Your task to perform on an android device: install app "Expedia: Hotels, Flights & Car" Image 0: 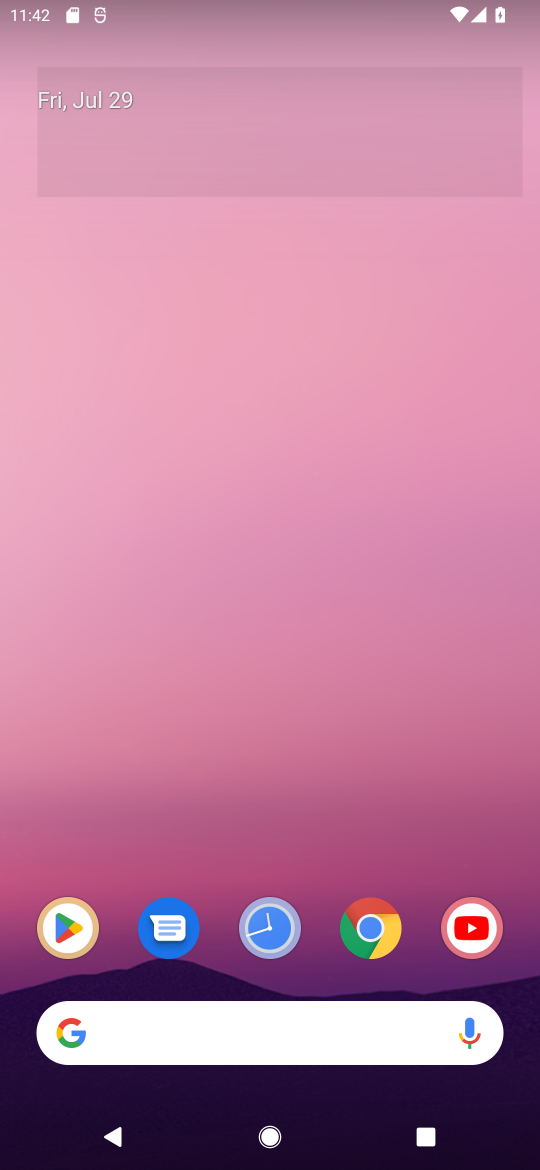
Step 0: drag from (411, 634) to (290, 14)
Your task to perform on an android device: install app "Expedia: Hotels, Flights & Car" Image 1: 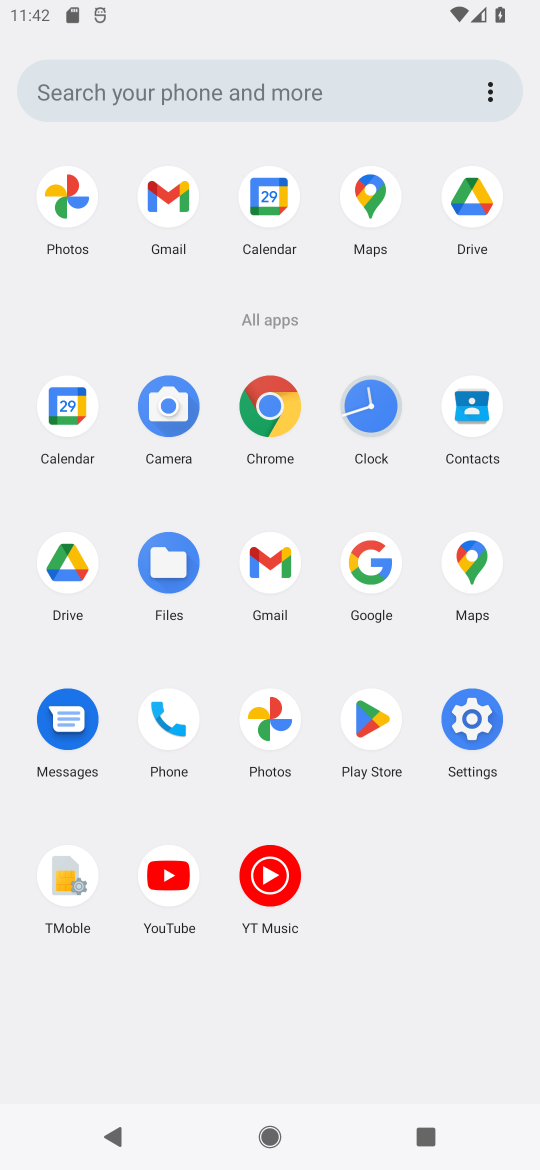
Step 1: click (373, 717)
Your task to perform on an android device: install app "Expedia: Hotels, Flights & Car" Image 2: 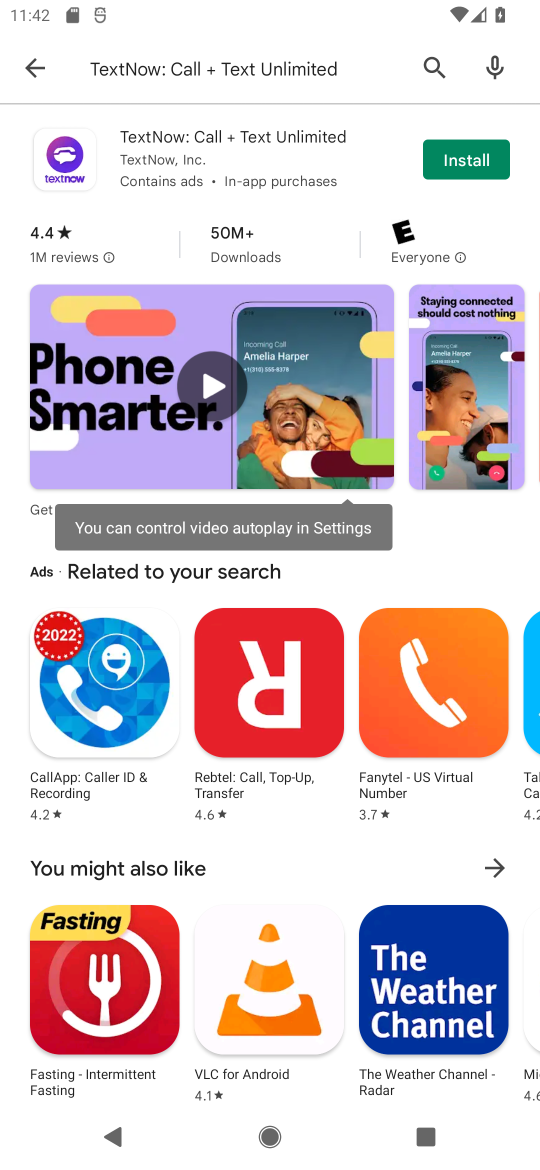
Step 2: click (281, 76)
Your task to perform on an android device: install app "Expedia: Hotels, Flights & Car" Image 3: 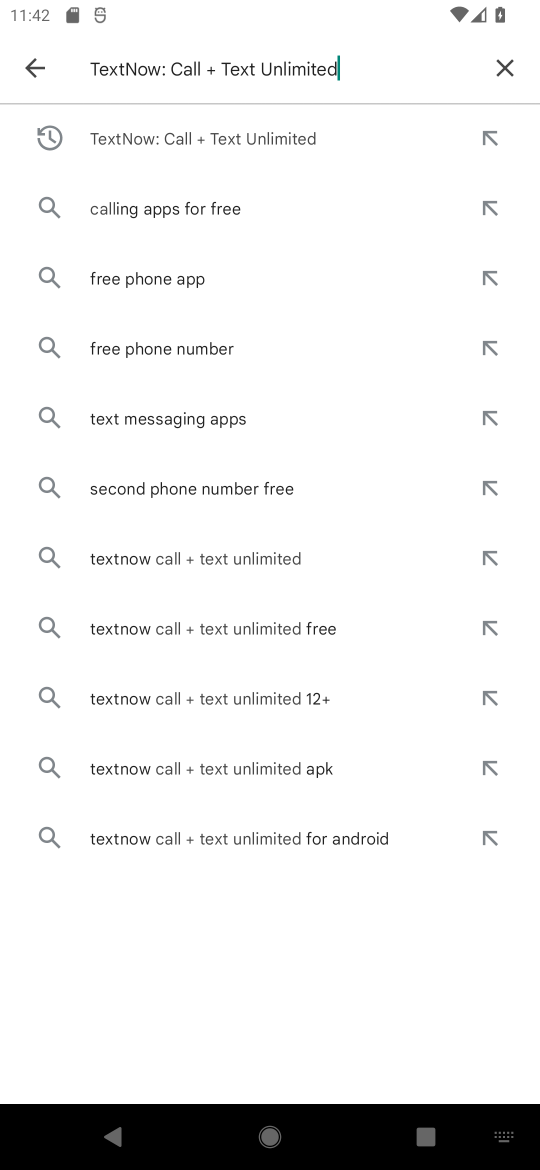
Step 3: click (503, 65)
Your task to perform on an android device: install app "Expedia: Hotels, Flights & Car" Image 4: 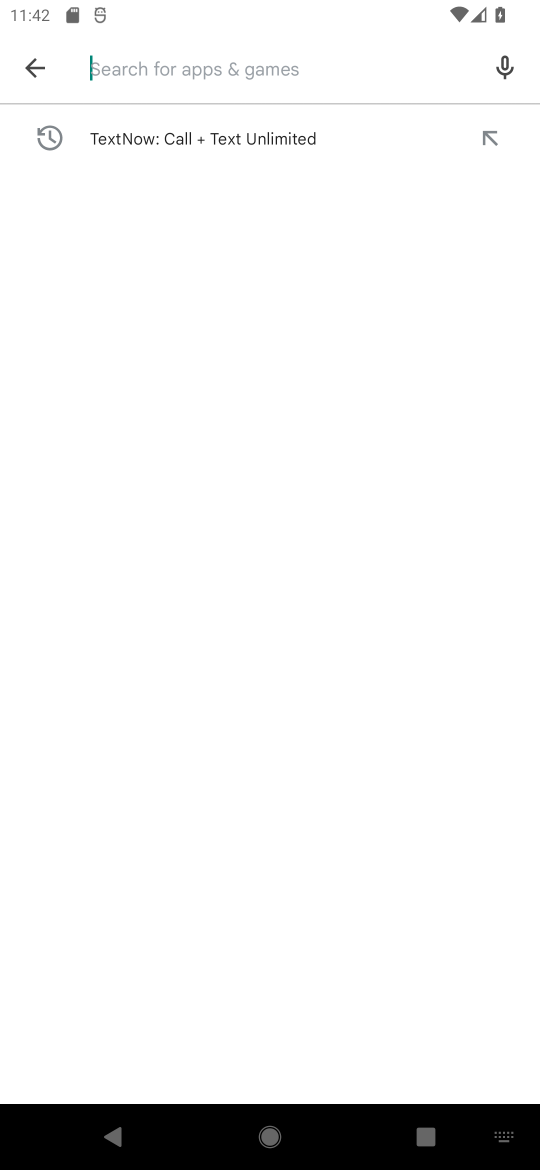
Step 4: type "Expedia: Hotels, Flights & Car"
Your task to perform on an android device: install app "Expedia: Hotels, Flights & Car" Image 5: 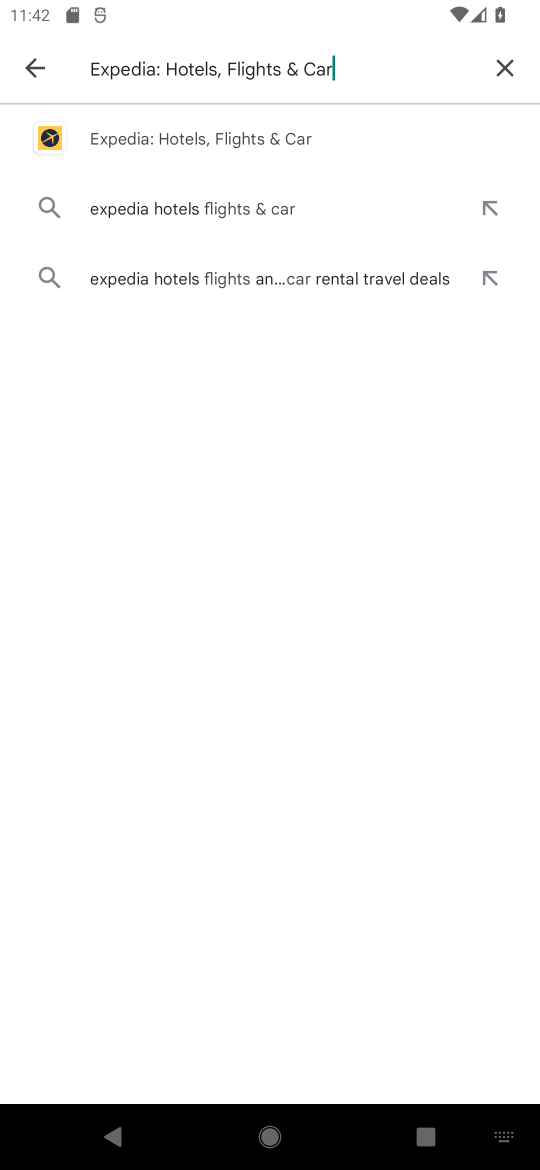
Step 5: press enter
Your task to perform on an android device: install app "Expedia: Hotels, Flights & Car" Image 6: 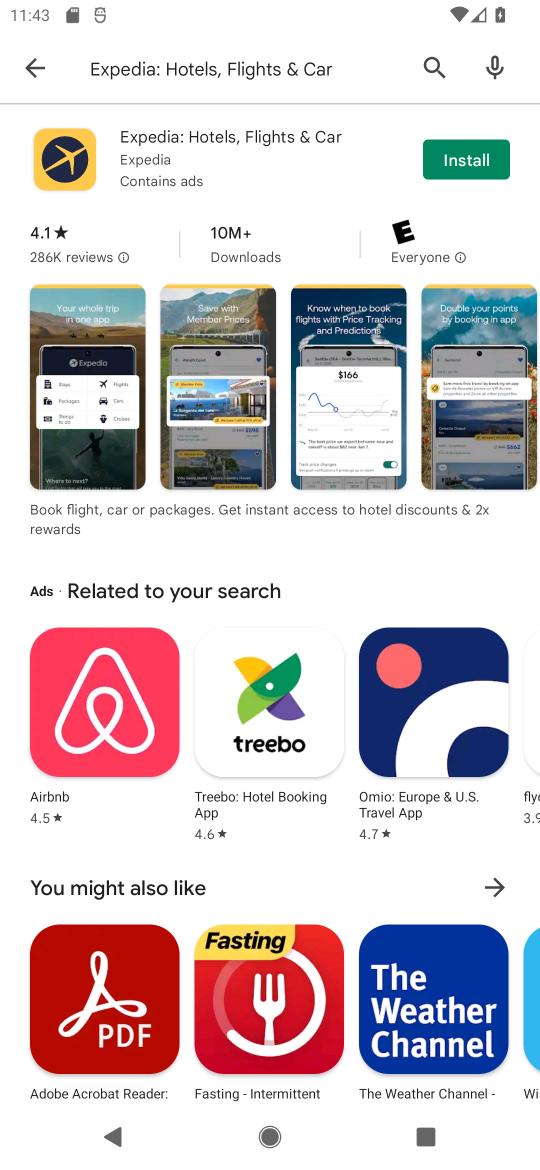
Step 6: click (464, 168)
Your task to perform on an android device: install app "Expedia: Hotels, Flights & Car" Image 7: 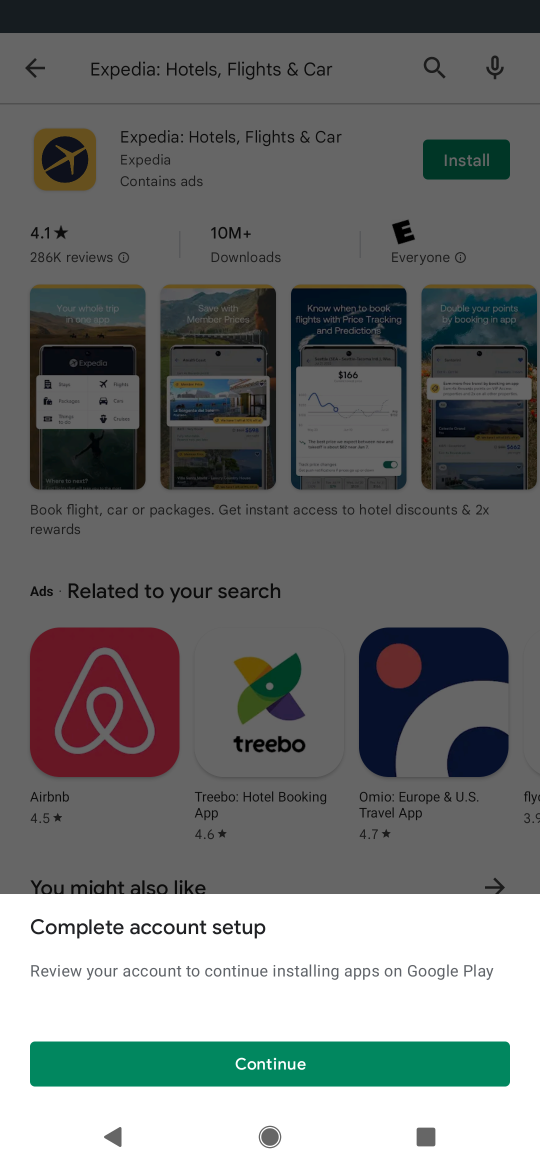
Step 7: click (383, 1056)
Your task to perform on an android device: install app "Expedia: Hotels, Flights & Car" Image 8: 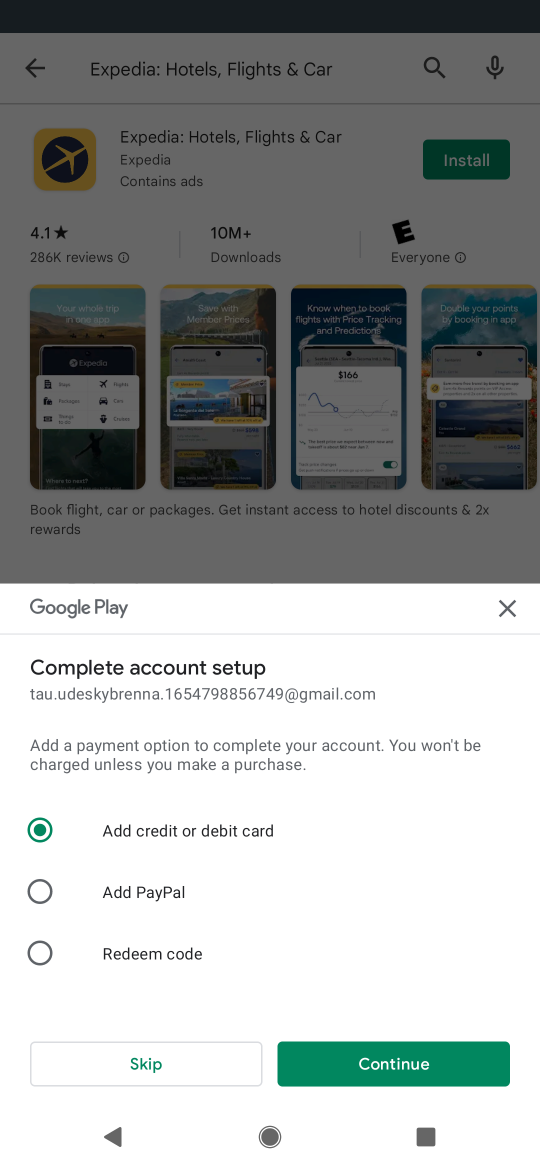
Step 8: click (110, 1069)
Your task to perform on an android device: install app "Expedia: Hotels, Flights & Car" Image 9: 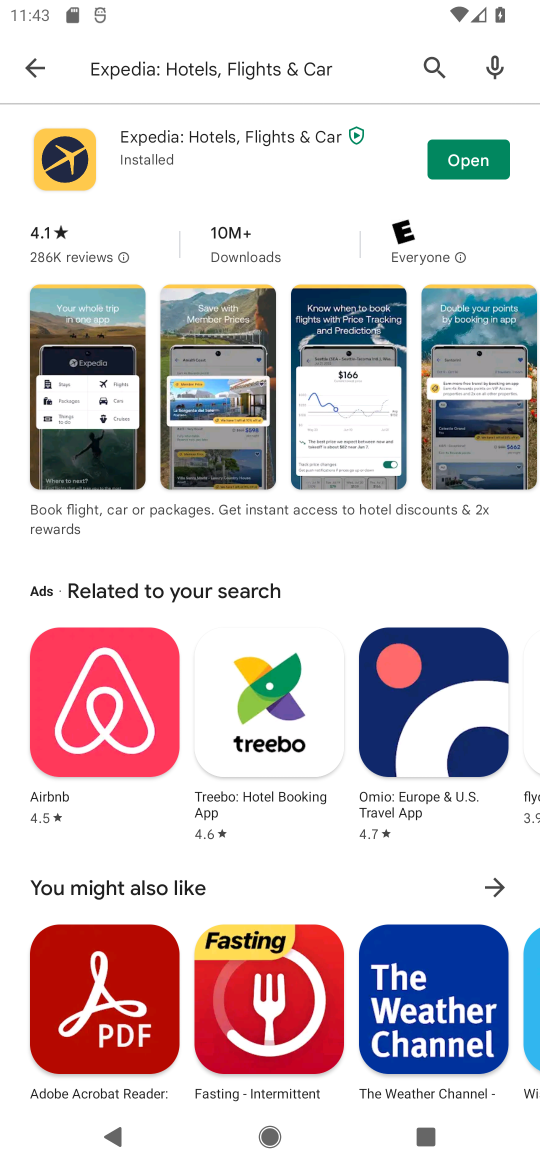
Step 9: task complete